Your task to perform on an android device: turn off sleep mode Image 0: 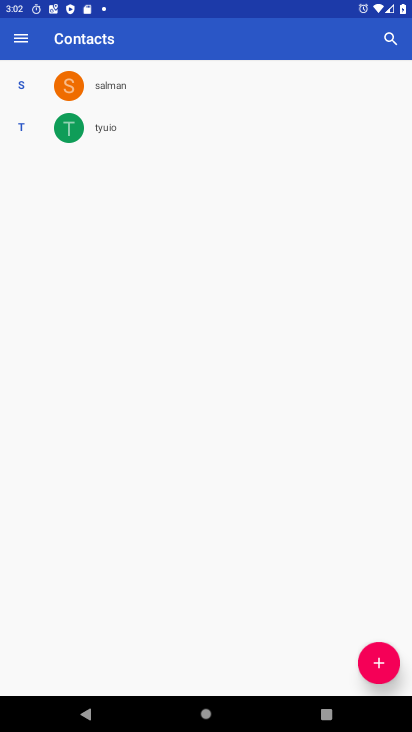
Step 0: press home button
Your task to perform on an android device: turn off sleep mode Image 1: 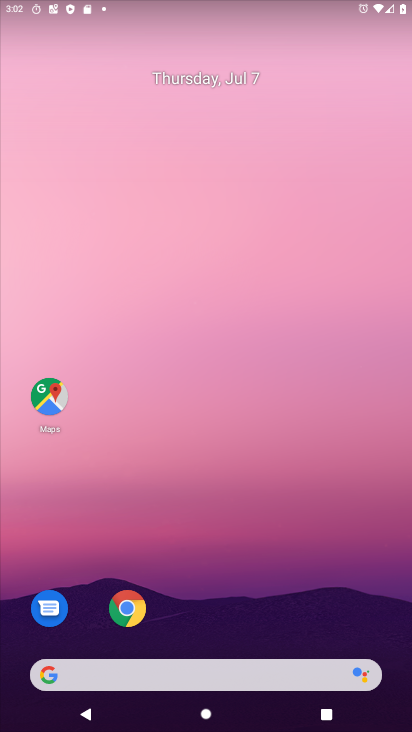
Step 1: drag from (266, 727) to (256, 82)
Your task to perform on an android device: turn off sleep mode Image 2: 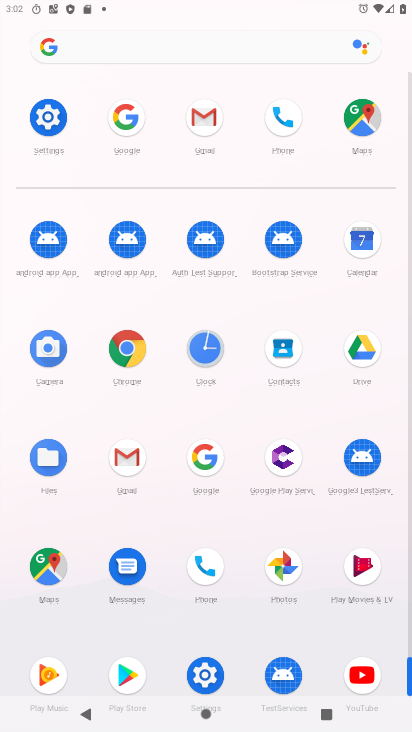
Step 2: click (48, 116)
Your task to perform on an android device: turn off sleep mode Image 3: 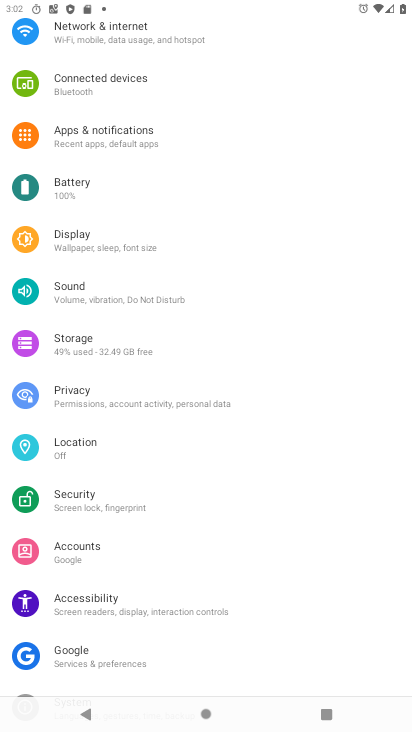
Step 3: click (95, 29)
Your task to perform on an android device: turn off sleep mode Image 4: 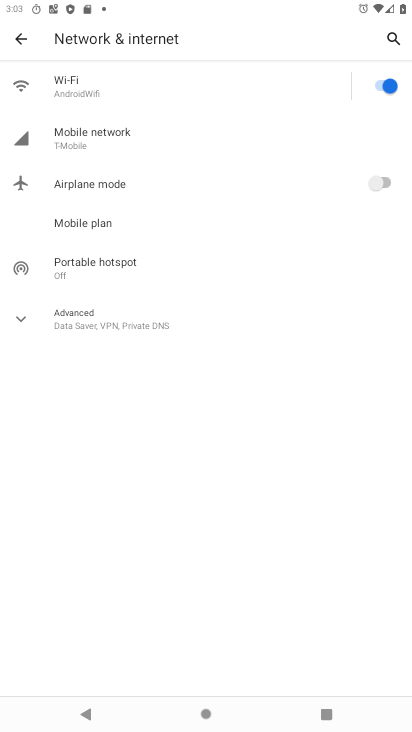
Step 4: click (22, 34)
Your task to perform on an android device: turn off sleep mode Image 5: 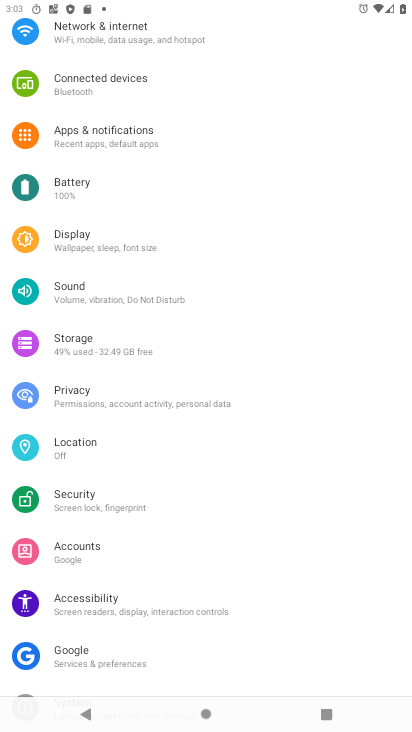
Step 5: click (107, 243)
Your task to perform on an android device: turn off sleep mode Image 6: 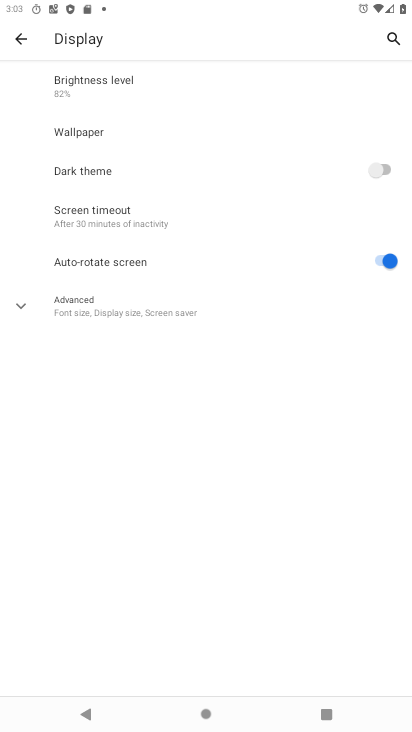
Step 6: task complete